Your task to perform on an android device: Open Chrome and go to settings Image 0: 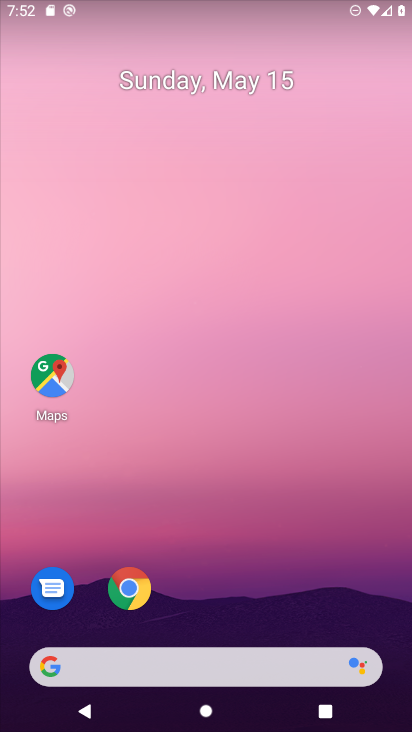
Step 0: click (133, 584)
Your task to perform on an android device: Open Chrome and go to settings Image 1: 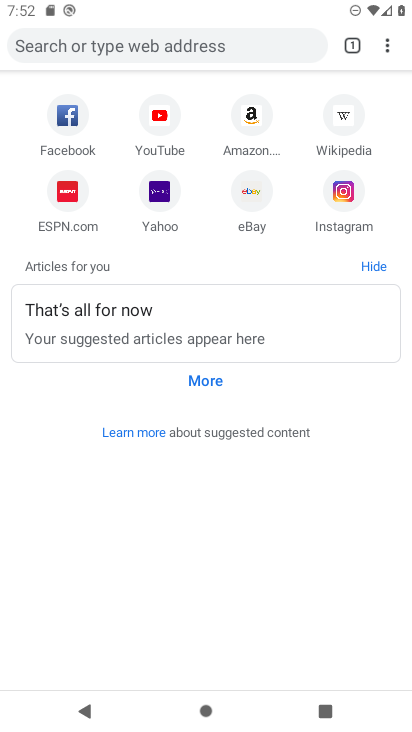
Step 1: click (383, 43)
Your task to perform on an android device: Open Chrome and go to settings Image 2: 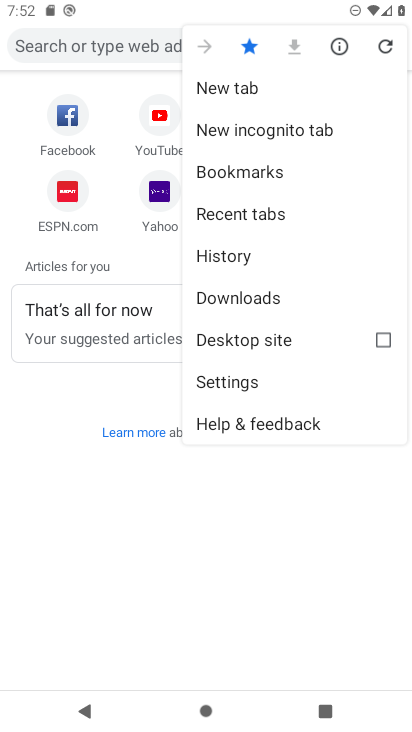
Step 2: click (260, 379)
Your task to perform on an android device: Open Chrome and go to settings Image 3: 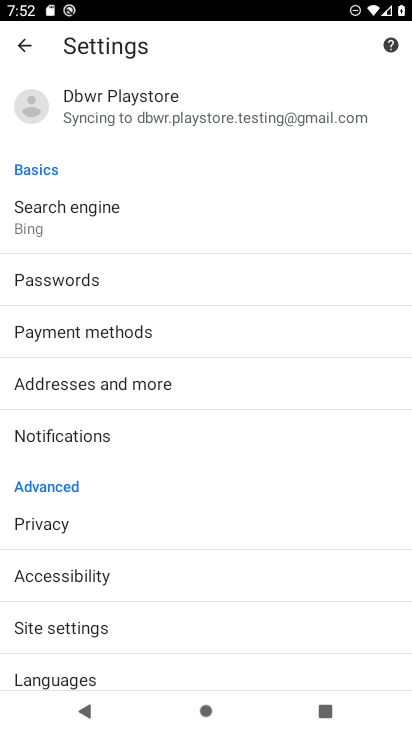
Step 3: task complete